Your task to perform on an android device: turn off data saver in the chrome app Image 0: 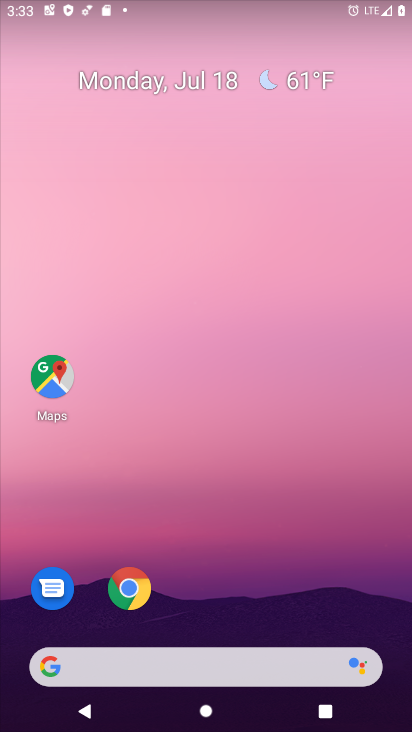
Step 0: click (131, 584)
Your task to perform on an android device: turn off data saver in the chrome app Image 1: 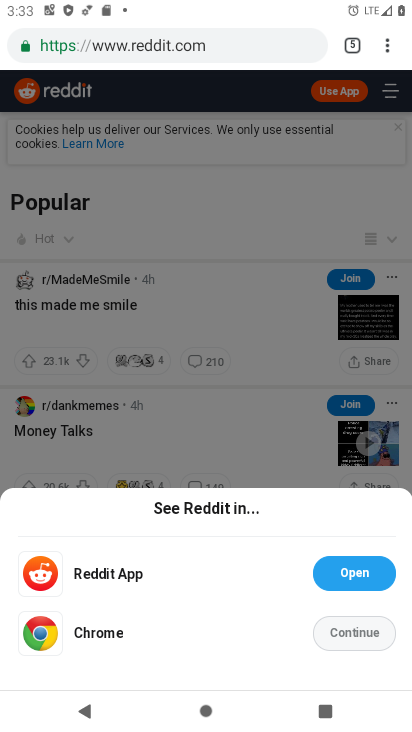
Step 1: drag from (388, 36) to (240, 547)
Your task to perform on an android device: turn off data saver in the chrome app Image 2: 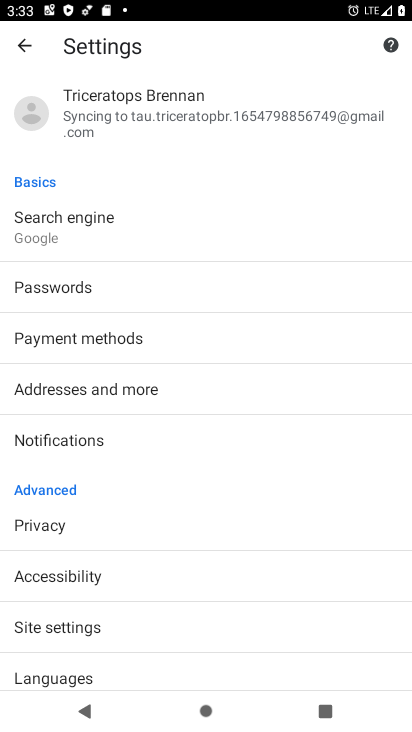
Step 2: drag from (189, 650) to (334, 181)
Your task to perform on an android device: turn off data saver in the chrome app Image 3: 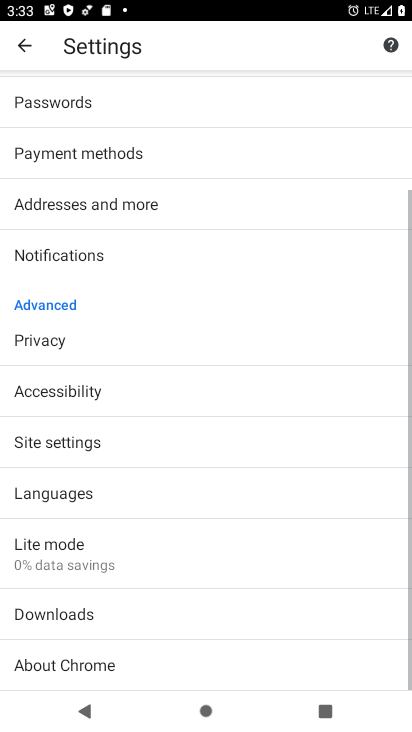
Step 3: click (71, 557)
Your task to perform on an android device: turn off data saver in the chrome app Image 4: 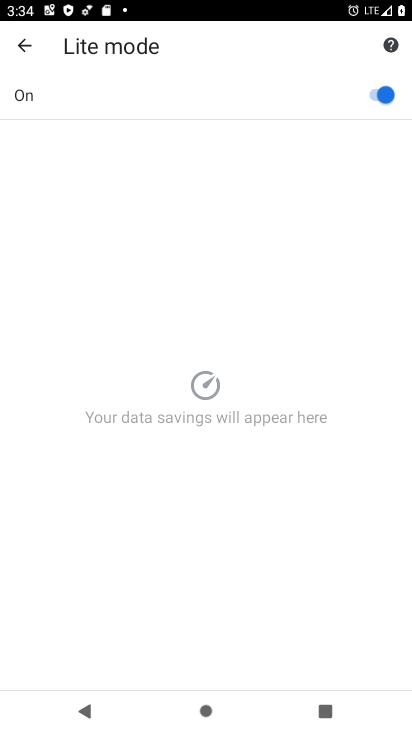
Step 4: click (388, 86)
Your task to perform on an android device: turn off data saver in the chrome app Image 5: 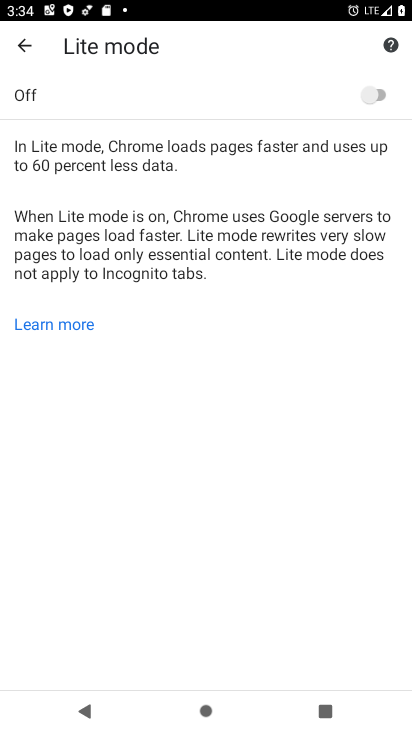
Step 5: task complete